Your task to perform on an android device: manage bookmarks in the chrome app Image 0: 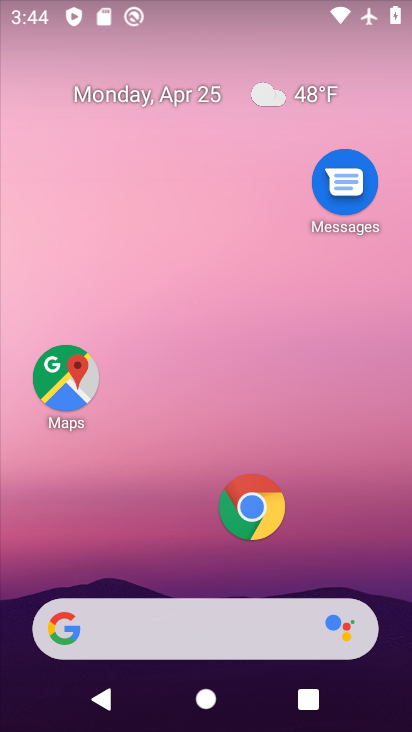
Step 0: click (265, 521)
Your task to perform on an android device: manage bookmarks in the chrome app Image 1: 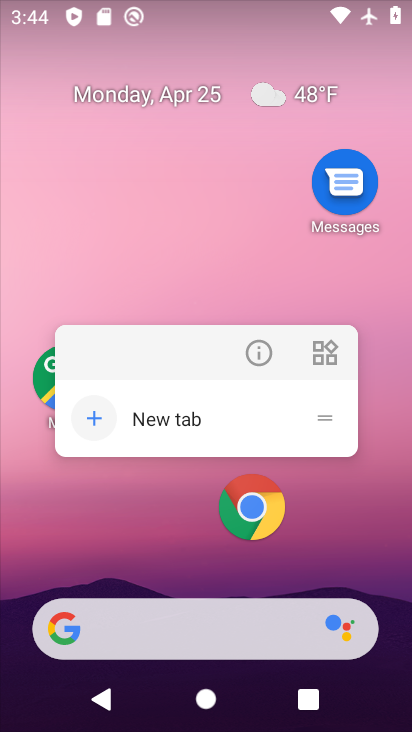
Step 1: click (265, 520)
Your task to perform on an android device: manage bookmarks in the chrome app Image 2: 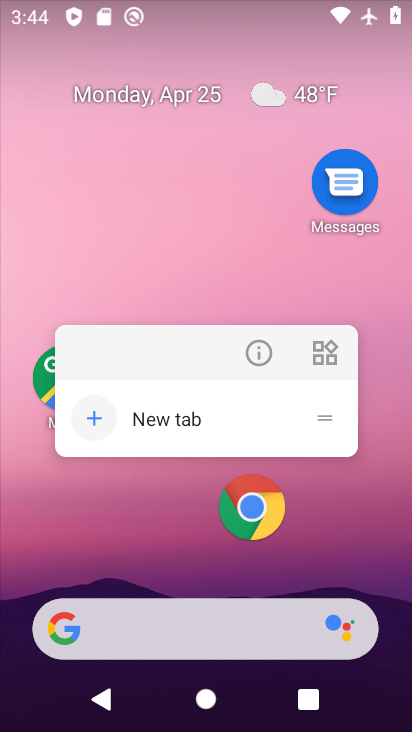
Step 2: click (250, 498)
Your task to perform on an android device: manage bookmarks in the chrome app Image 3: 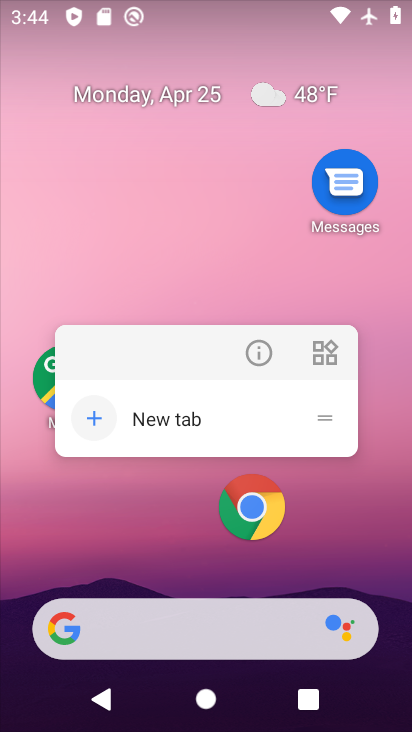
Step 3: click (251, 499)
Your task to perform on an android device: manage bookmarks in the chrome app Image 4: 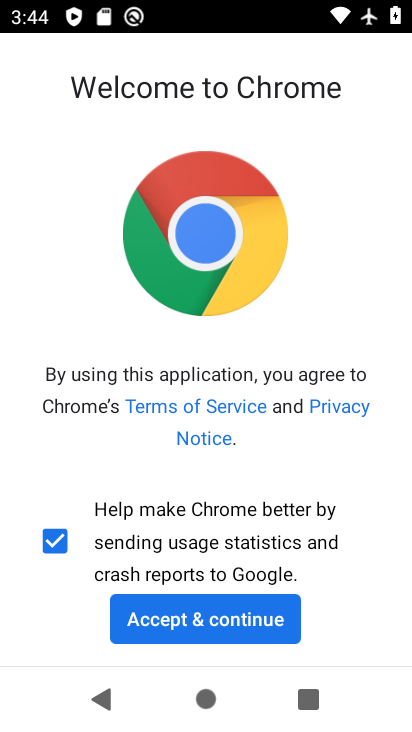
Step 4: click (273, 616)
Your task to perform on an android device: manage bookmarks in the chrome app Image 5: 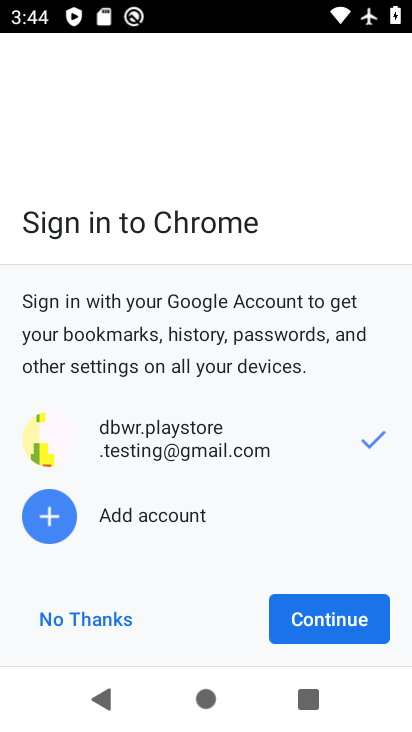
Step 5: click (355, 600)
Your task to perform on an android device: manage bookmarks in the chrome app Image 6: 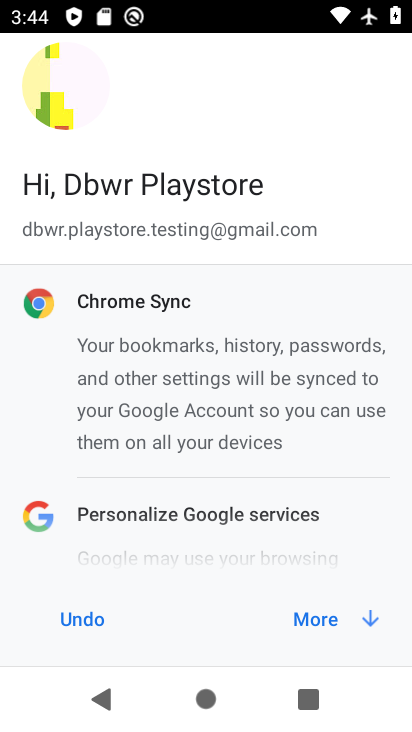
Step 6: click (355, 614)
Your task to perform on an android device: manage bookmarks in the chrome app Image 7: 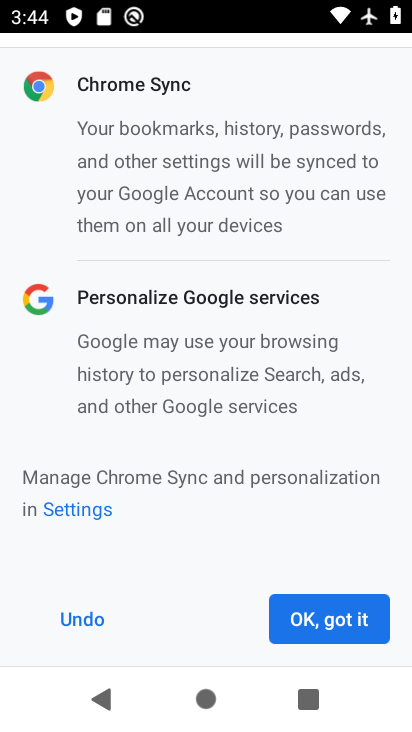
Step 7: click (340, 623)
Your task to perform on an android device: manage bookmarks in the chrome app Image 8: 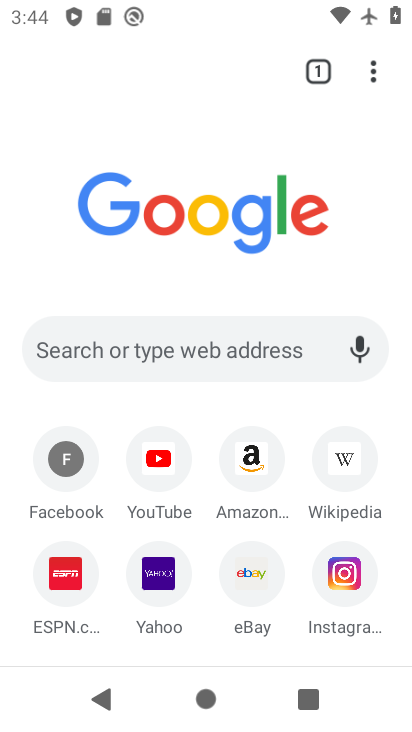
Step 8: task complete